Your task to perform on an android device: open a new tab in the chrome app Image 0: 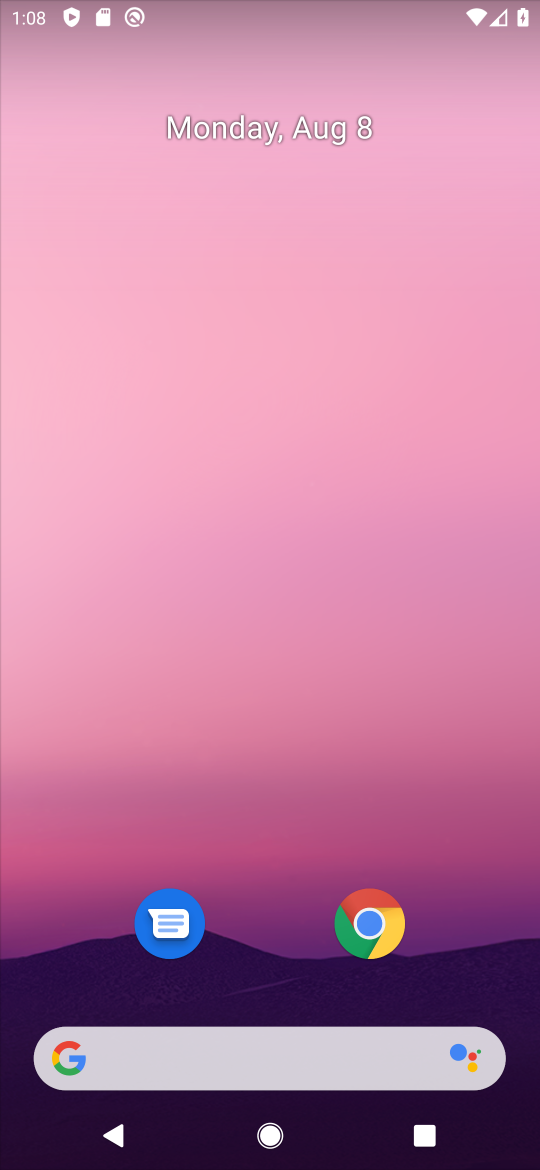
Step 0: click (349, 933)
Your task to perform on an android device: open a new tab in the chrome app Image 1: 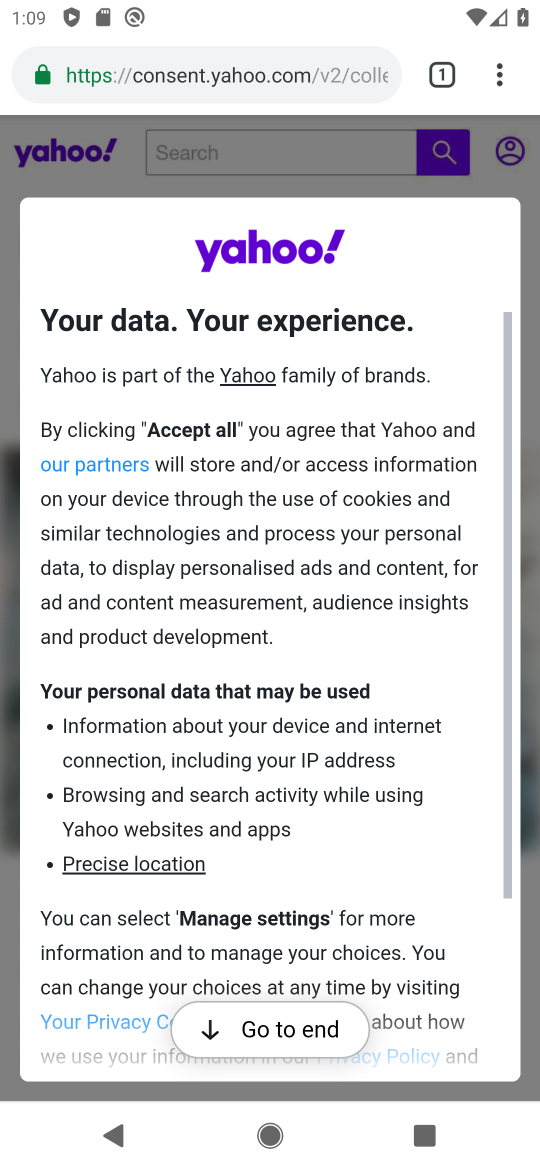
Step 1: click (438, 89)
Your task to perform on an android device: open a new tab in the chrome app Image 2: 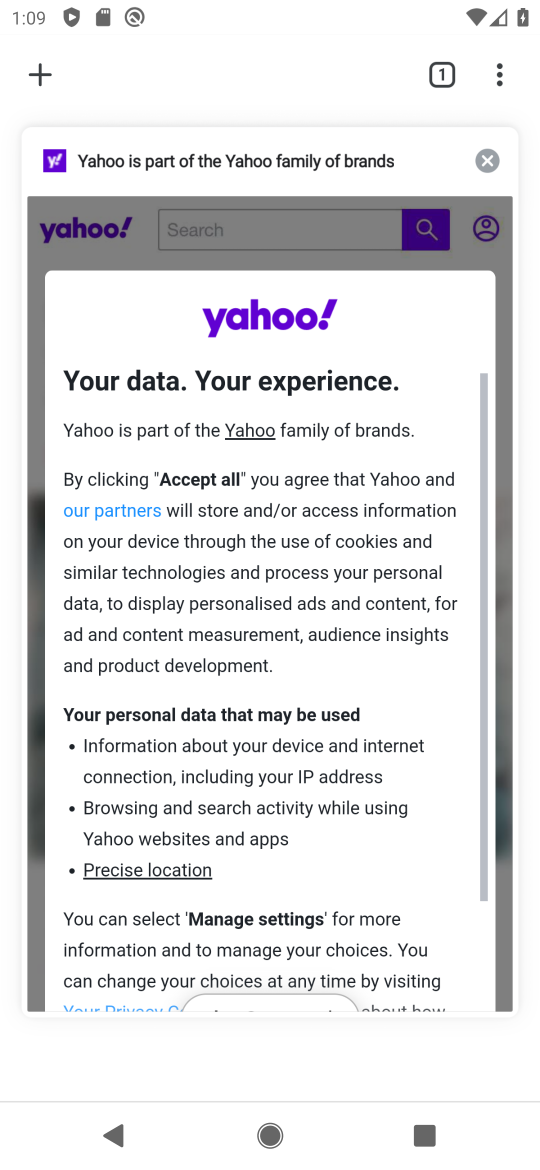
Step 2: click (40, 83)
Your task to perform on an android device: open a new tab in the chrome app Image 3: 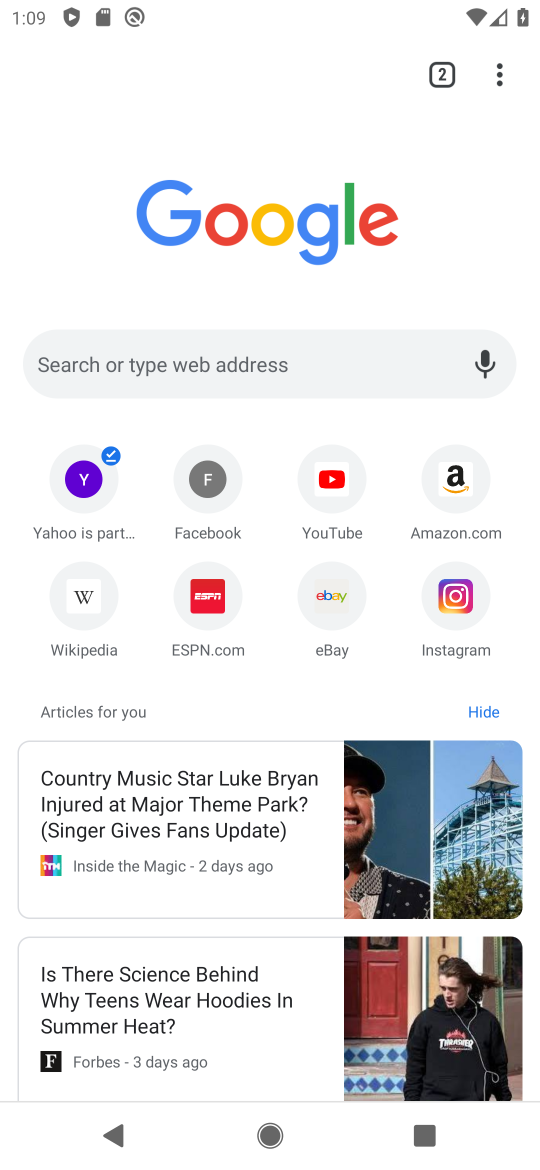
Step 3: task complete